Your task to perform on an android device: see creations saved in the google photos Image 0: 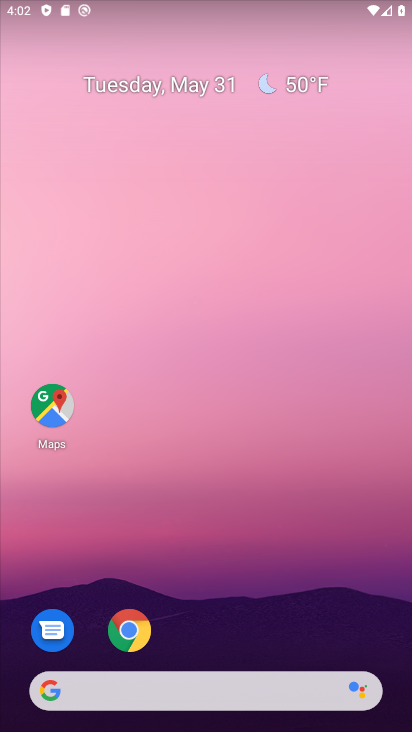
Step 0: drag from (301, 567) to (272, 23)
Your task to perform on an android device: see creations saved in the google photos Image 1: 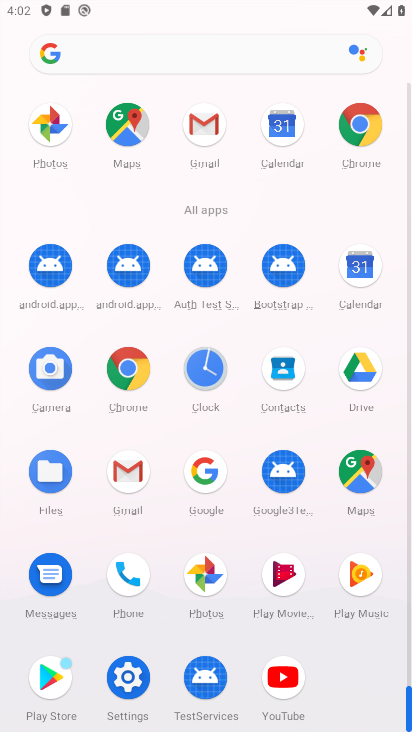
Step 1: drag from (6, 616) to (0, 242)
Your task to perform on an android device: see creations saved in the google photos Image 2: 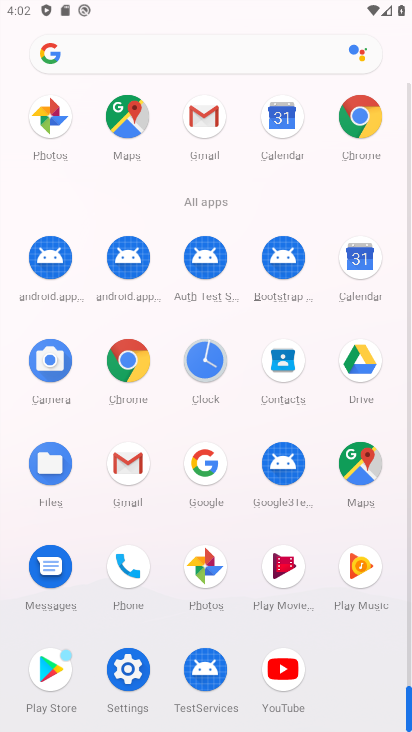
Step 2: click (205, 560)
Your task to perform on an android device: see creations saved in the google photos Image 3: 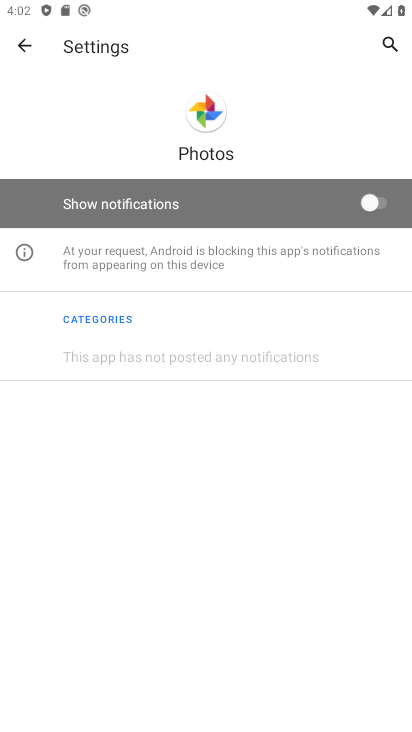
Step 3: click (27, 49)
Your task to perform on an android device: see creations saved in the google photos Image 4: 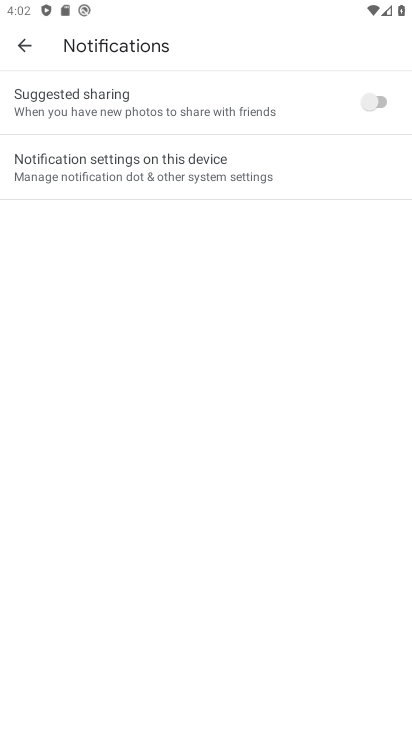
Step 4: click (27, 49)
Your task to perform on an android device: see creations saved in the google photos Image 5: 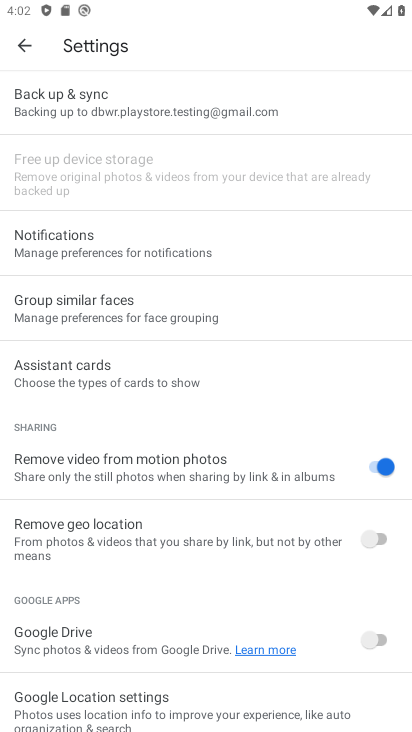
Step 5: click (23, 48)
Your task to perform on an android device: see creations saved in the google photos Image 6: 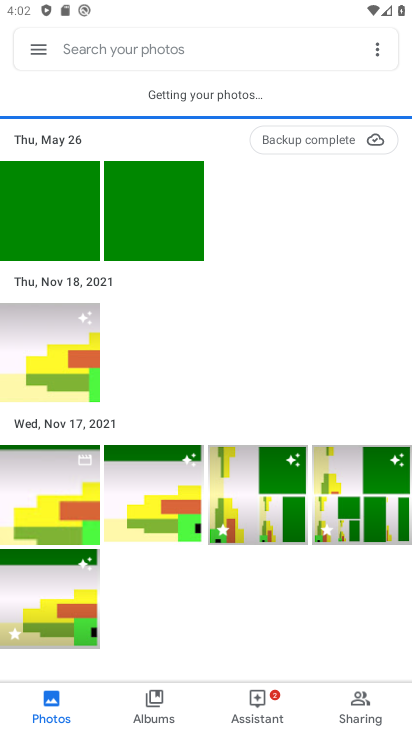
Step 6: task complete